Your task to perform on an android device: Open Google Chrome Image 0: 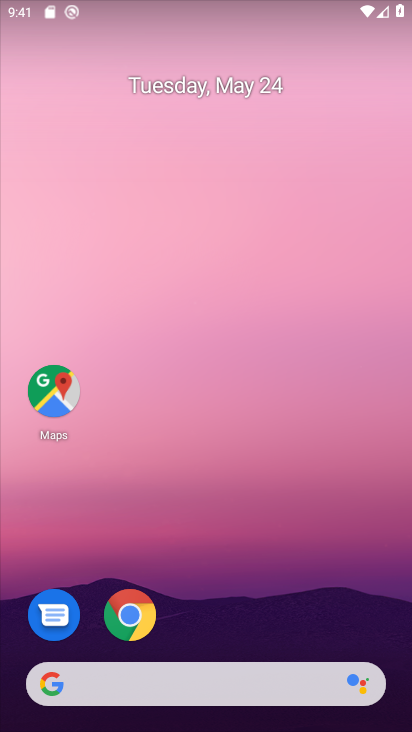
Step 0: drag from (378, 625) to (346, 287)
Your task to perform on an android device: Open Google Chrome Image 1: 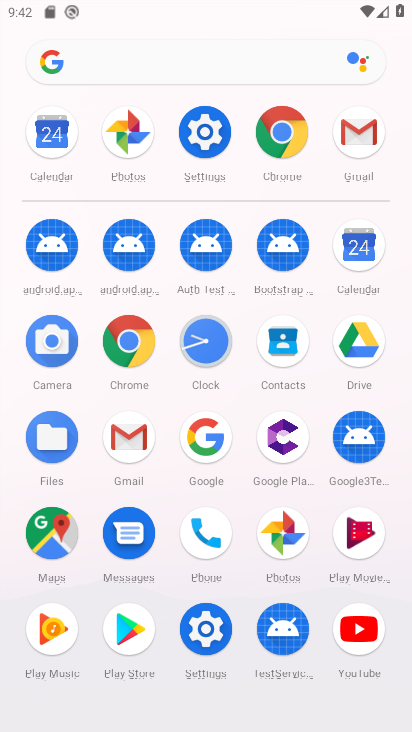
Step 1: click (125, 353)
Your task to perform on an android device: Open Google Chrome Image 2: 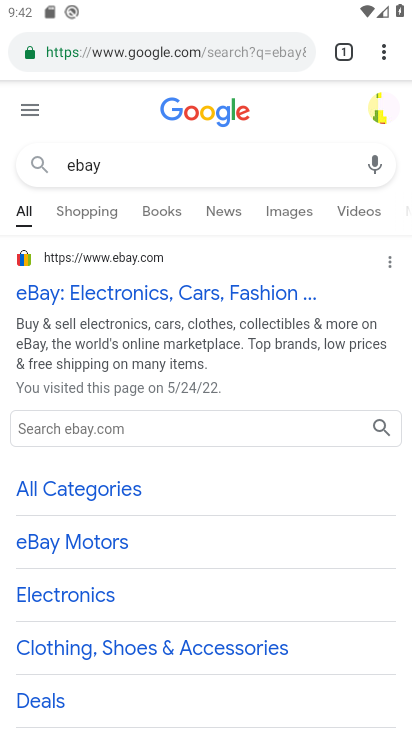
Step 2: task complete